Your task to perform on an android device: Open location settings Image 0: 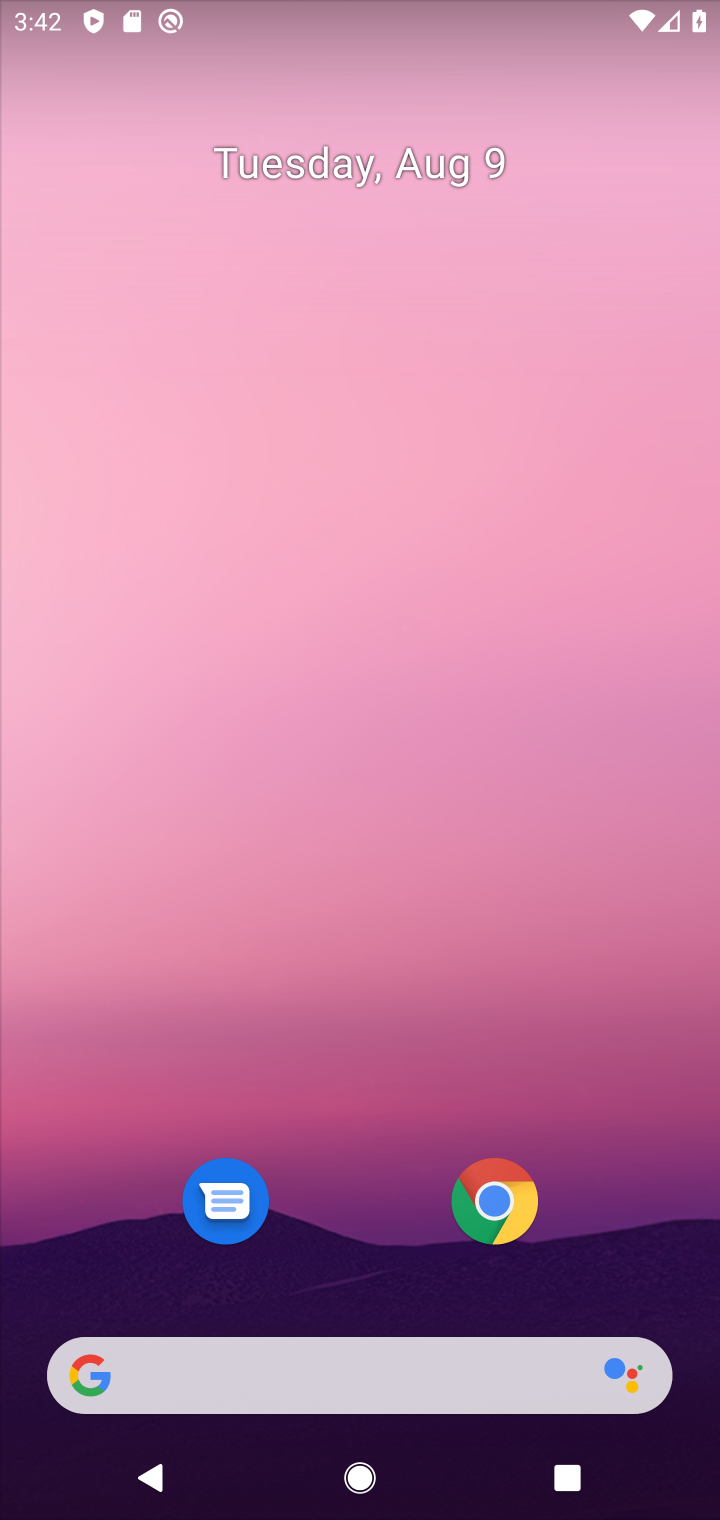
Step 0: drag from (324, 1319) to (414, 78)
Your task to perform on an android device: Open location settings Image 1: 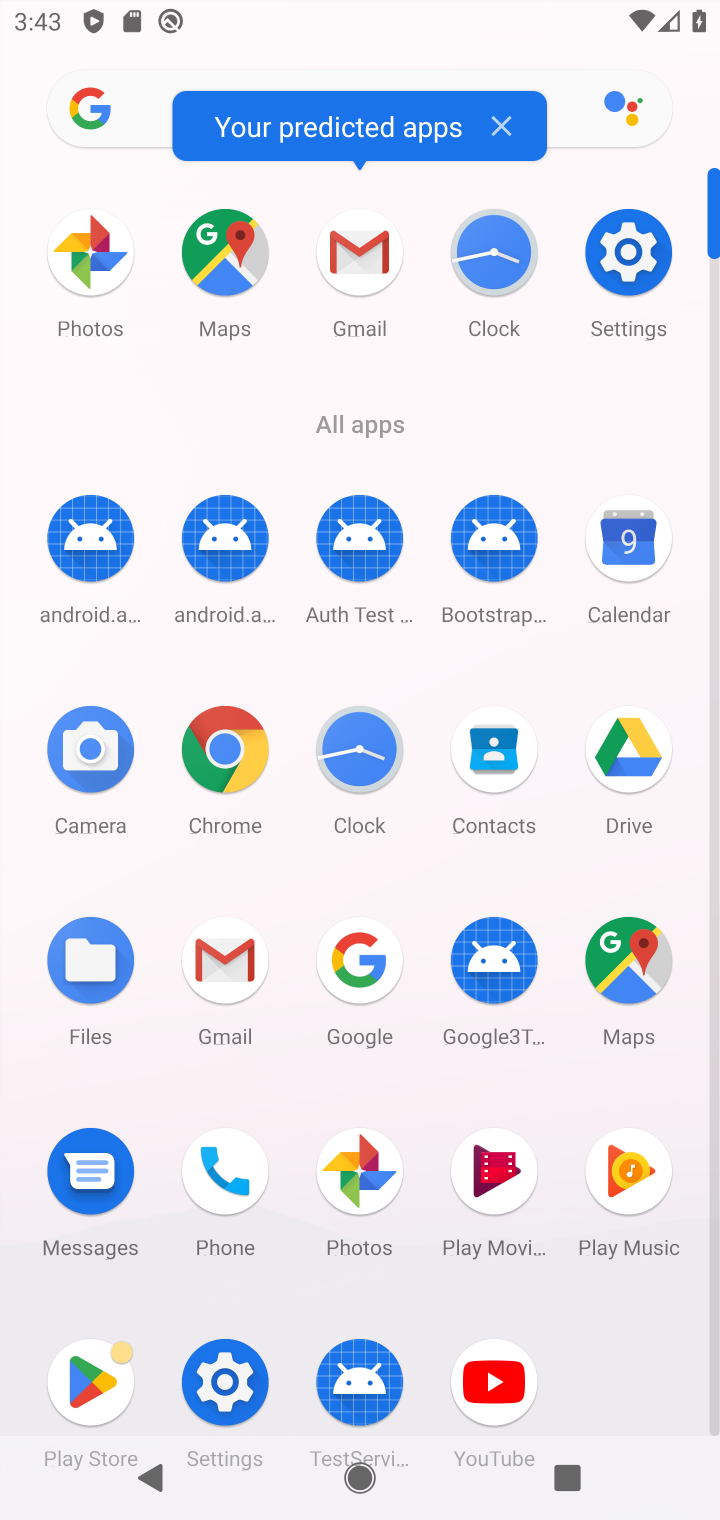
Step 1: click (631, 255)
Your task to perform on an android device: Open location settings Image 2: 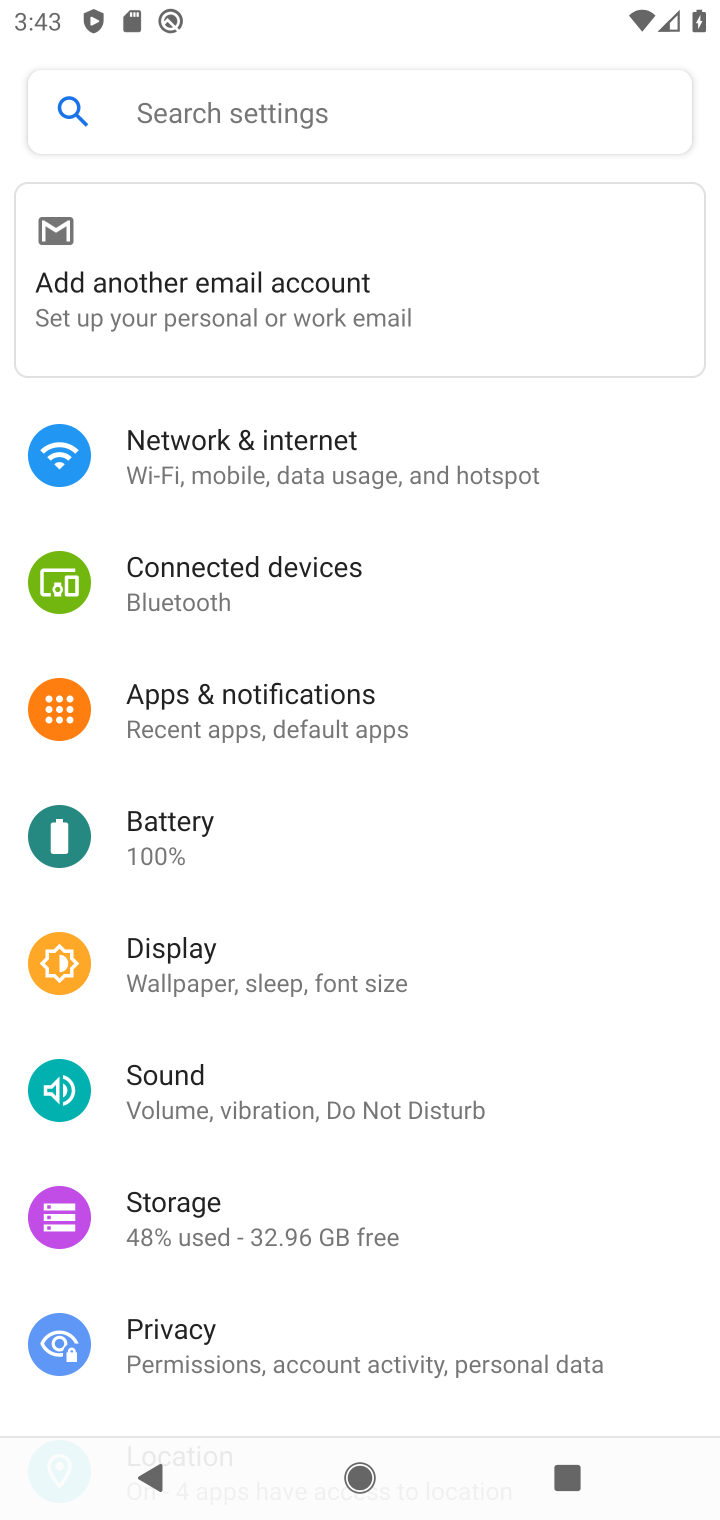
Step 2: drag from (264, 1144) to (419, 840)
Your task to perform on an android device: Open location settings Image 3: 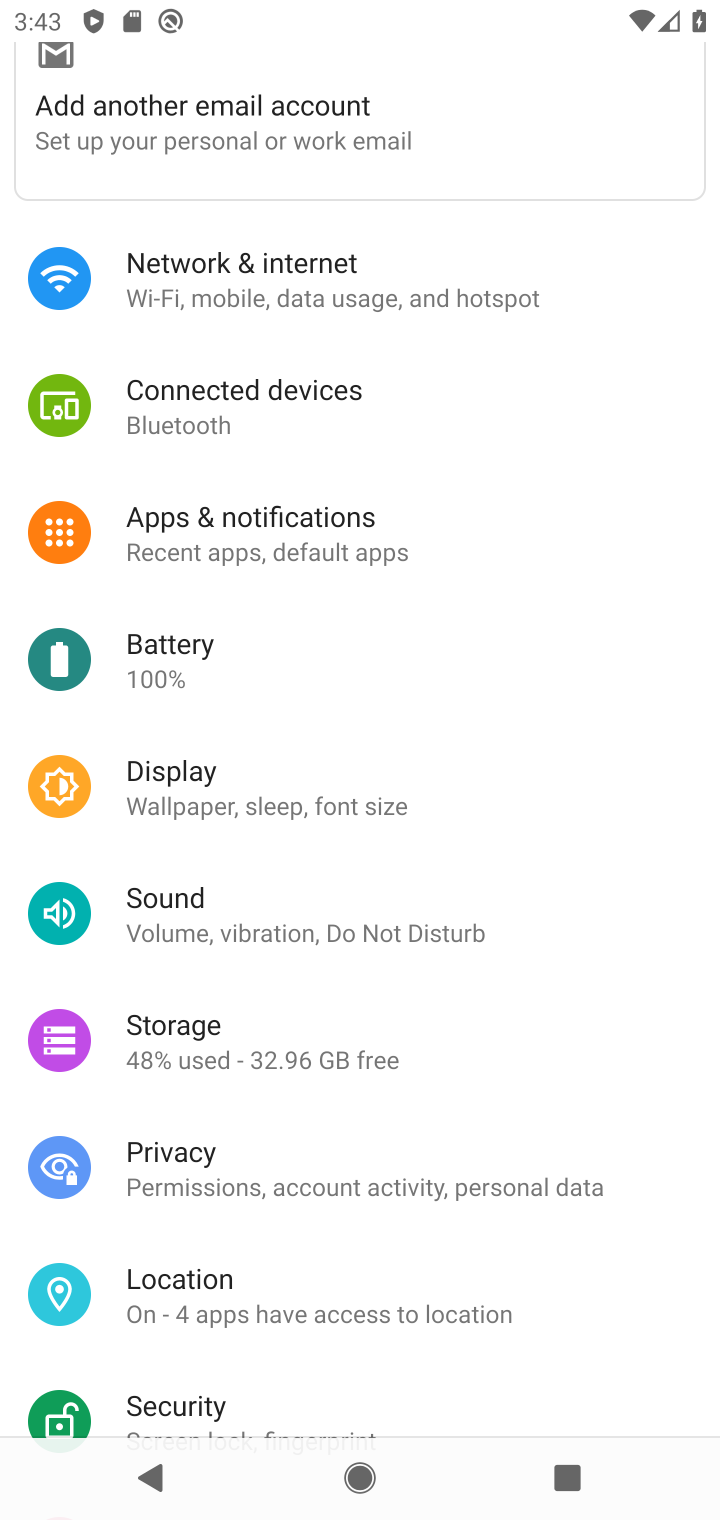
Step 3: drag from (294, 1256) to (430, 1022)
Your task to perform on an android device: Open location settings Image 4: 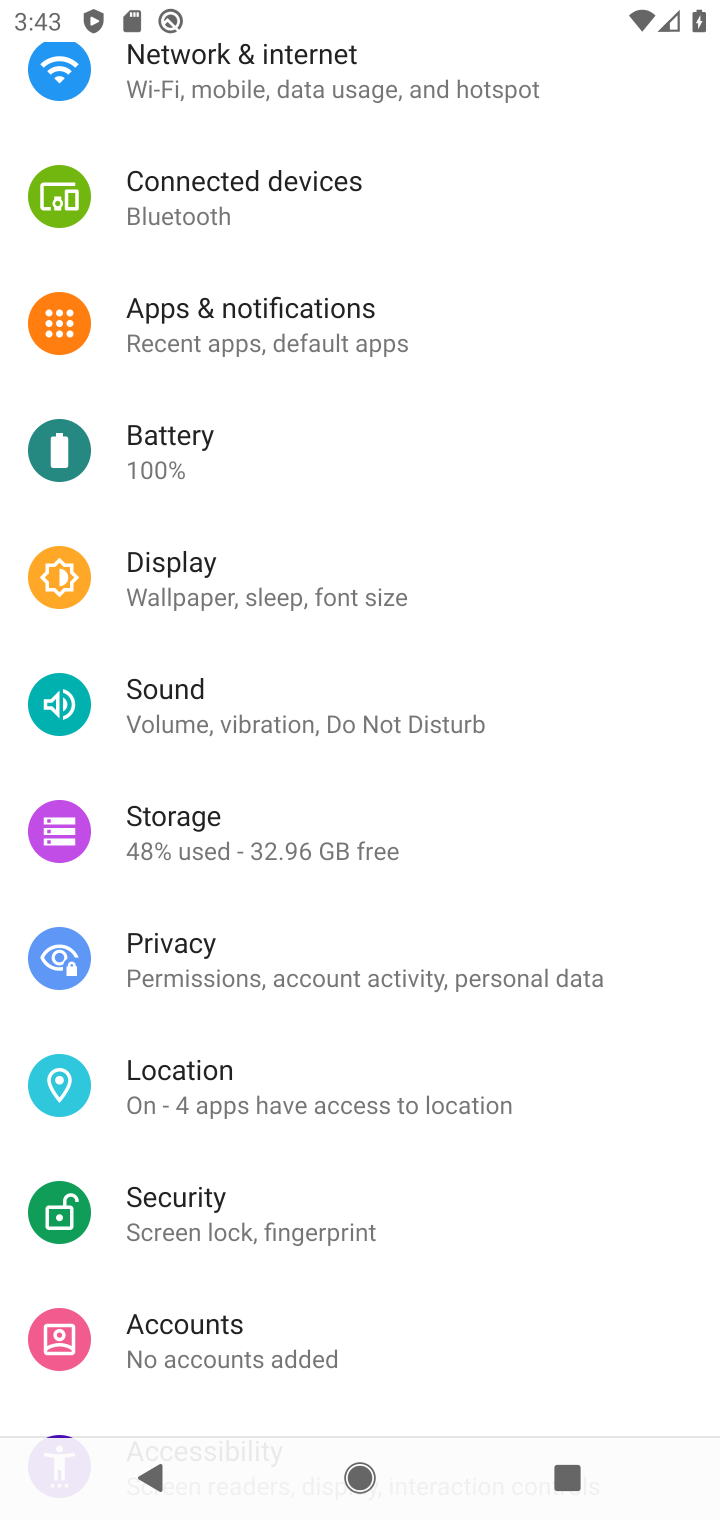
Step 4: click (393, 1099)
Your task to perform on an android device: Open location settings Image 5: 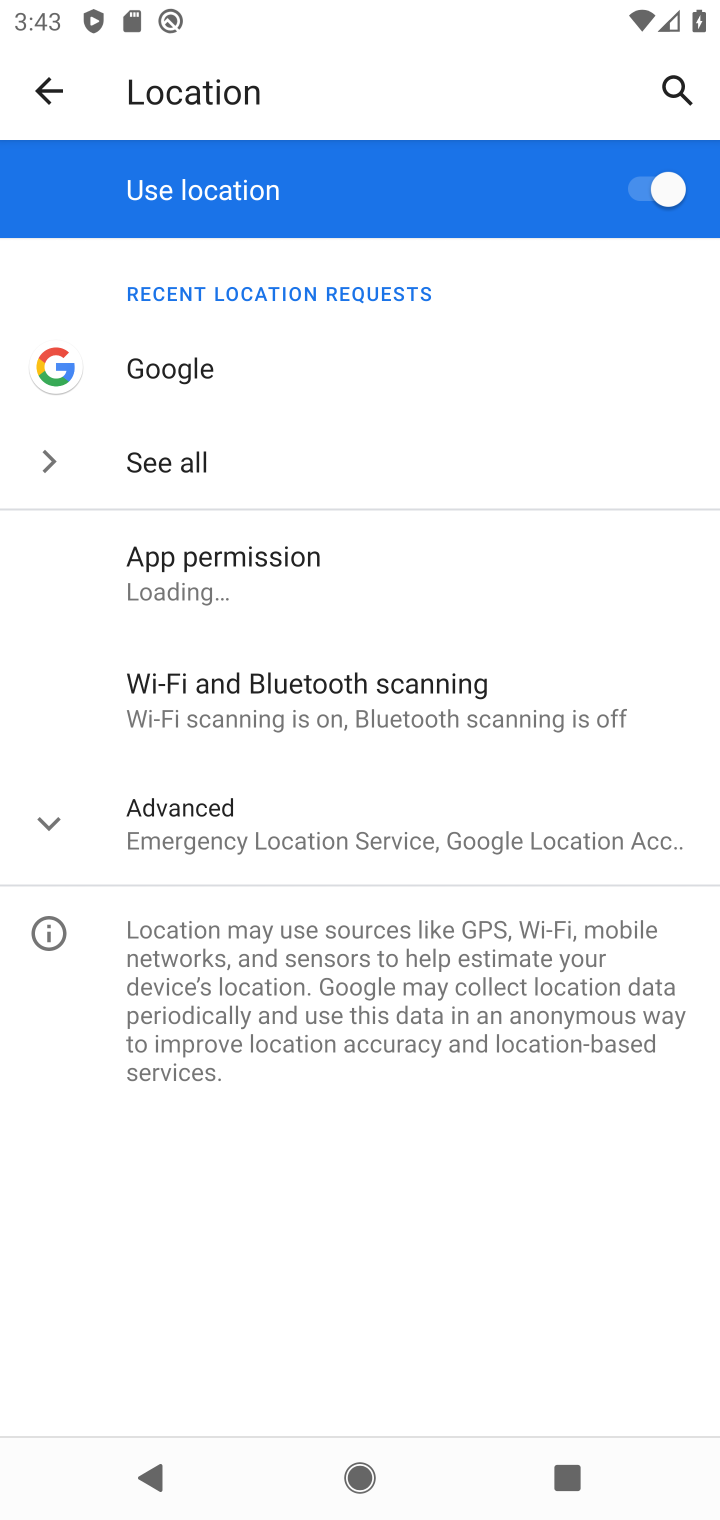
Step 5: task complete